Your task to perform on an android device: Go to Yahoo.com Image 0: 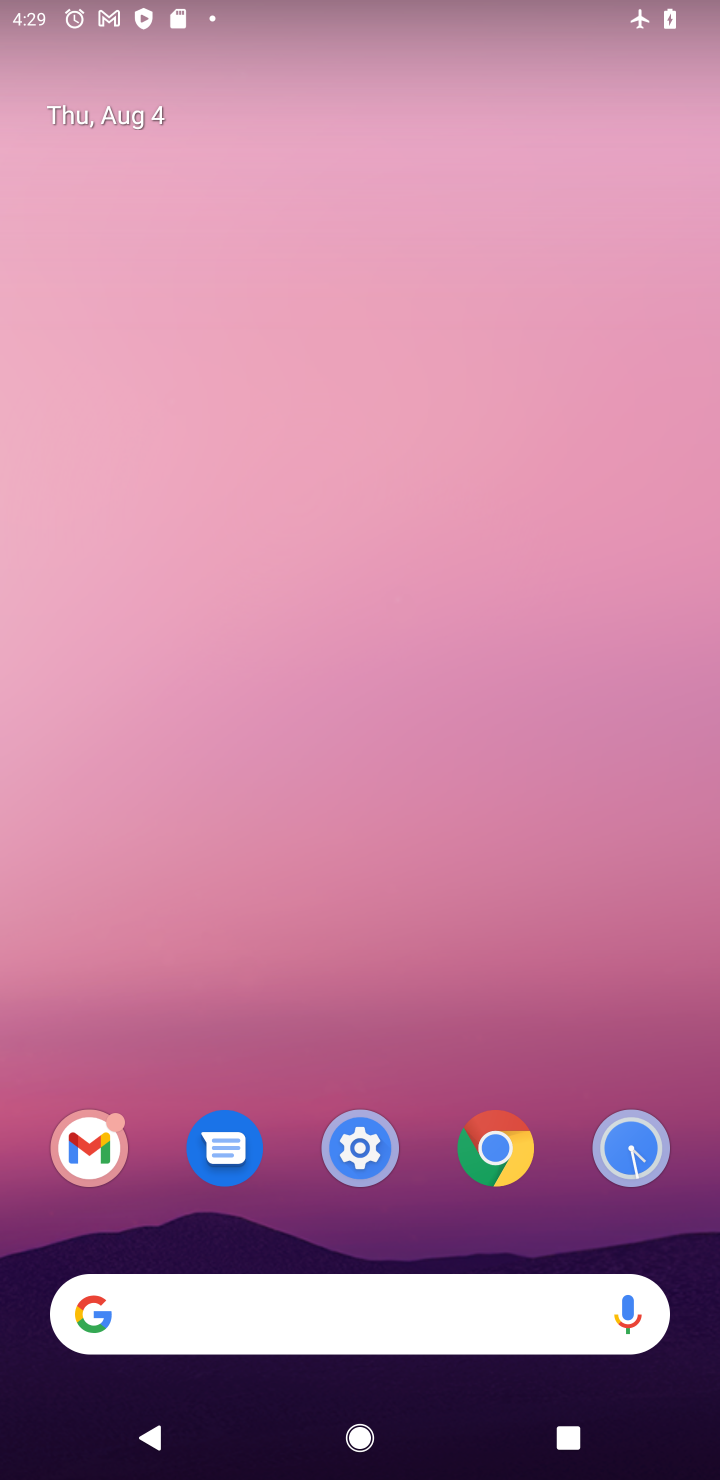
Step 0: click (489, 1150)
Your task to perform on an android device: Go to Yahoo.com Image 1: 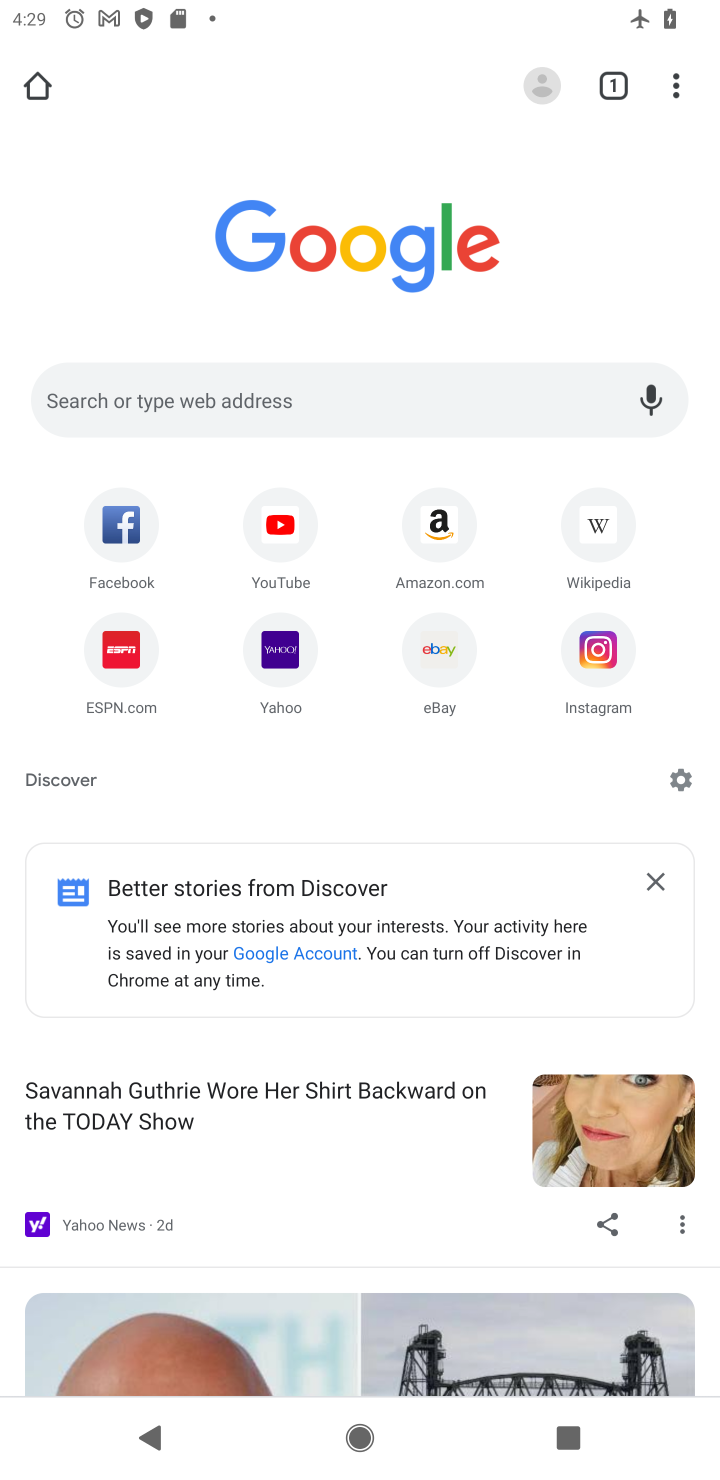
Step 1: click (278, 382)
Your task to perform on an android device: Go to Yahoo.com Image 2: 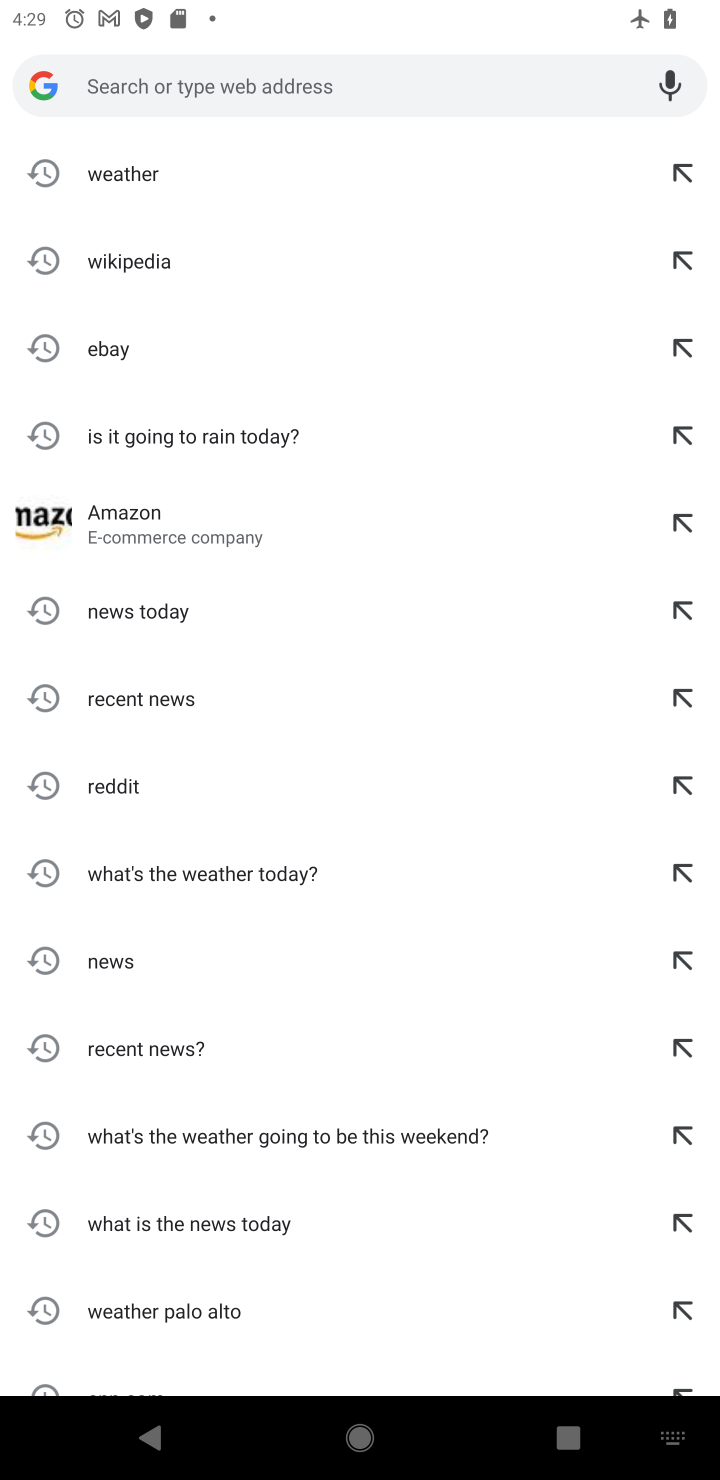
Step 2: type "yahoo.com"
Your task to perform on an android device: Go to Yahoo.com Image 3: 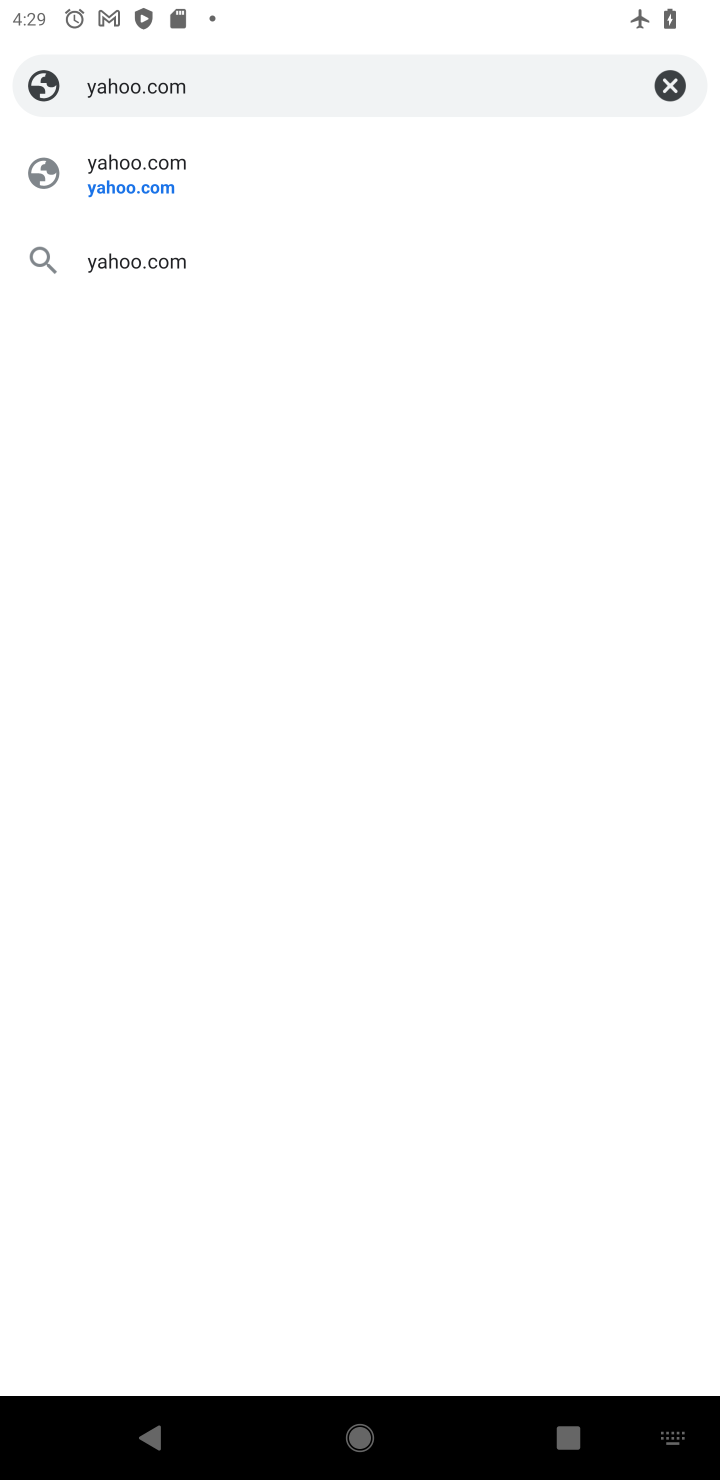
Step 3: click (113, 158)
Your task to perform on an android device: Go to Yahoo.com Image 4: 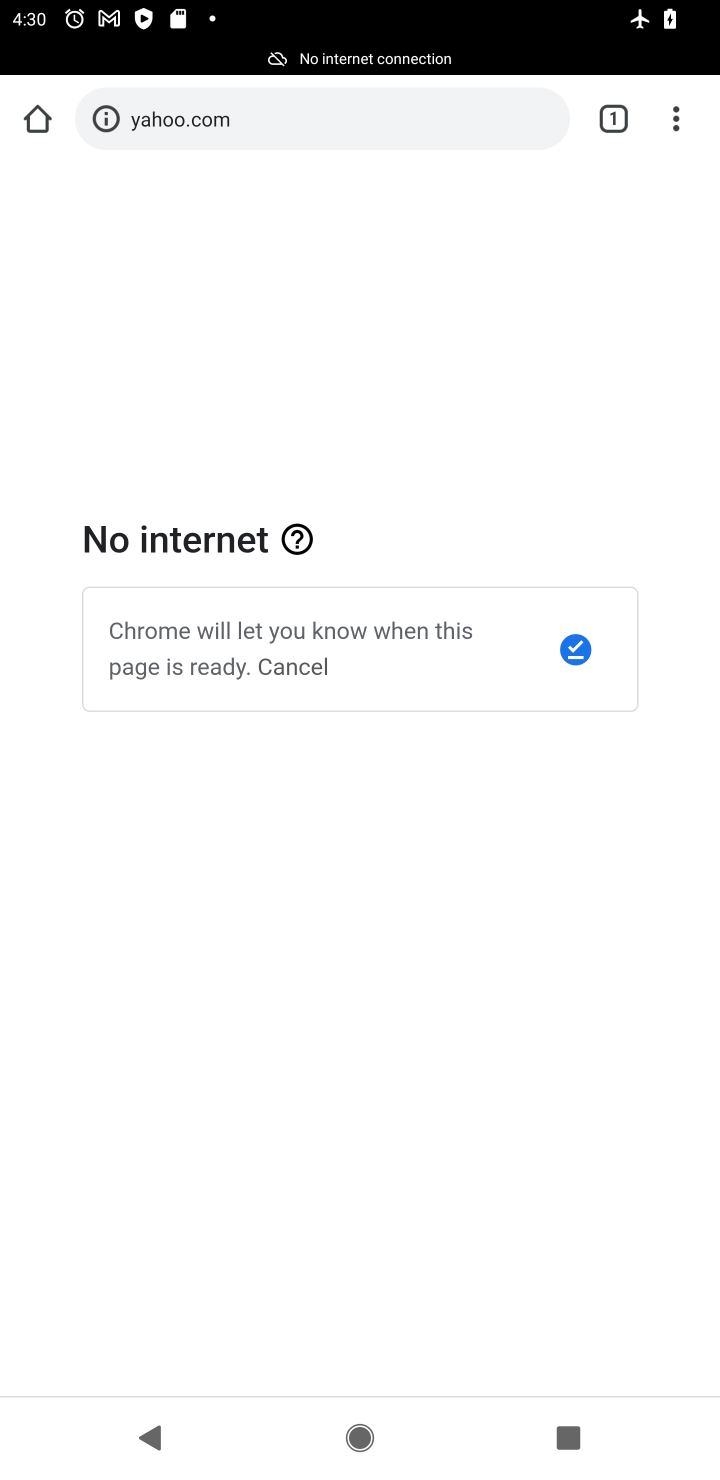
Step 4: task complete